Your task to perform on an android device: Go to eBay Image 0: 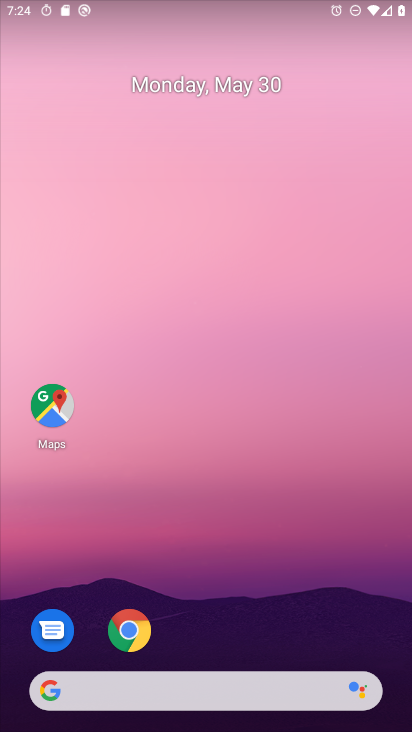
Step 0: drag from (312, 621) to (292, 44)
Your task to perform on an android device: Go to eBay Image 1: 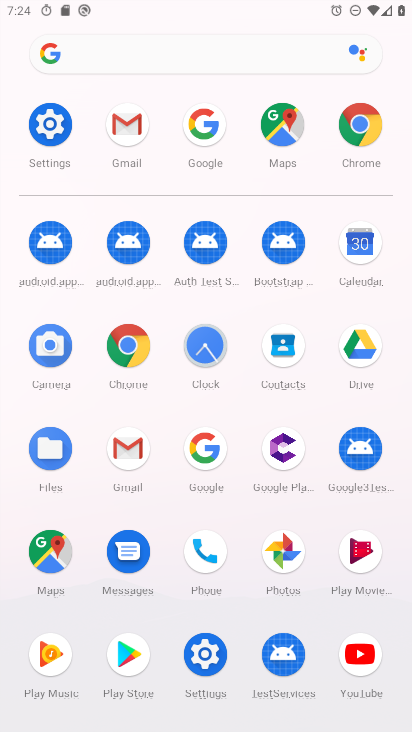
Step 1: click (196, 437)
Your task to perform on an android device: Go to eBay Image 2: 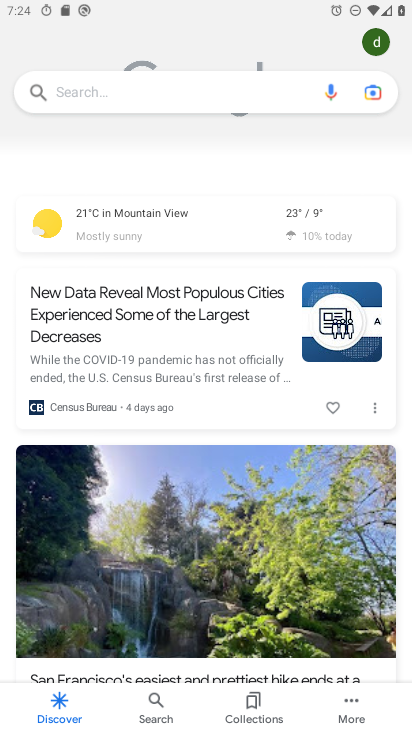
Step 2: click (174, 97)
Your task to perform on an android device: Go to eBay Image 3: 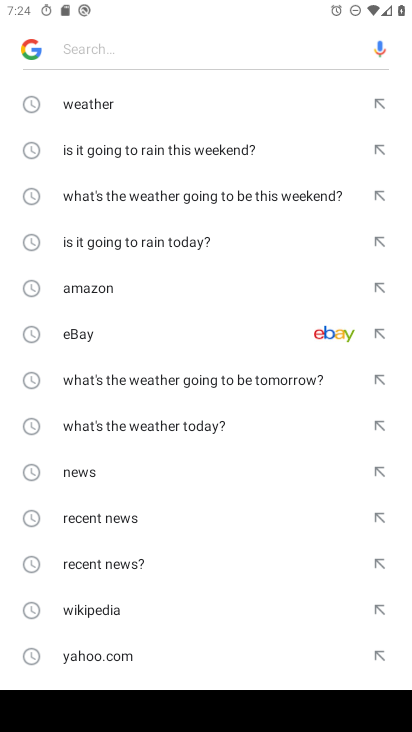
Step 3: click (199, 333)
Your task to perform on an android device: Go to eBay Image 4: 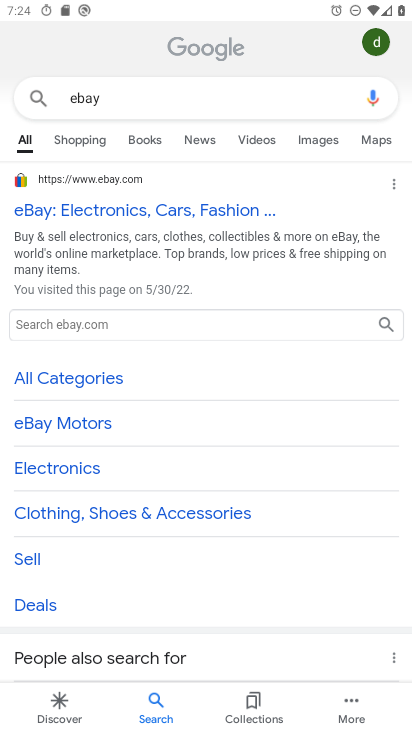
Step 4: task complete